Your task to perform on an android device: Clear the shopping cart on target. Image 0: 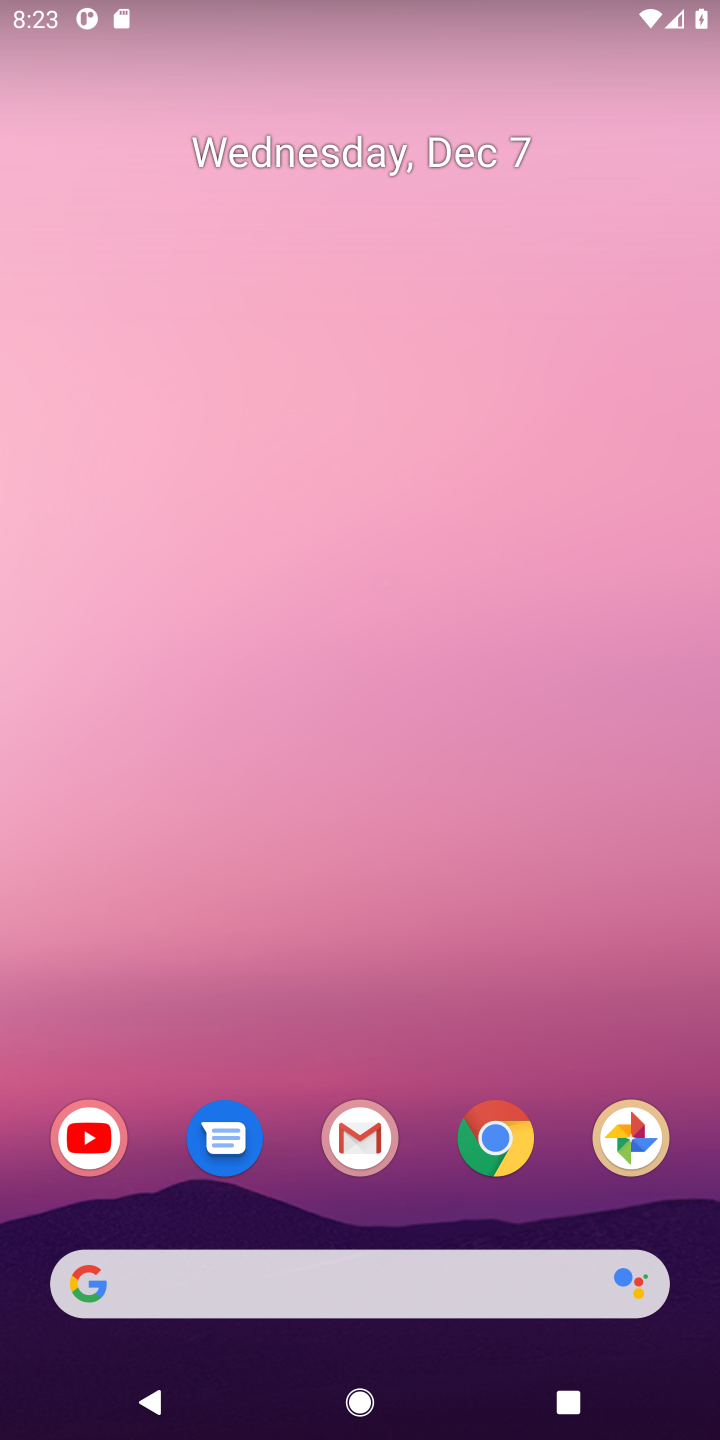
Step 0: press home button
Your task to perform on an android device: Clear the shopping cart on target. Image 1: 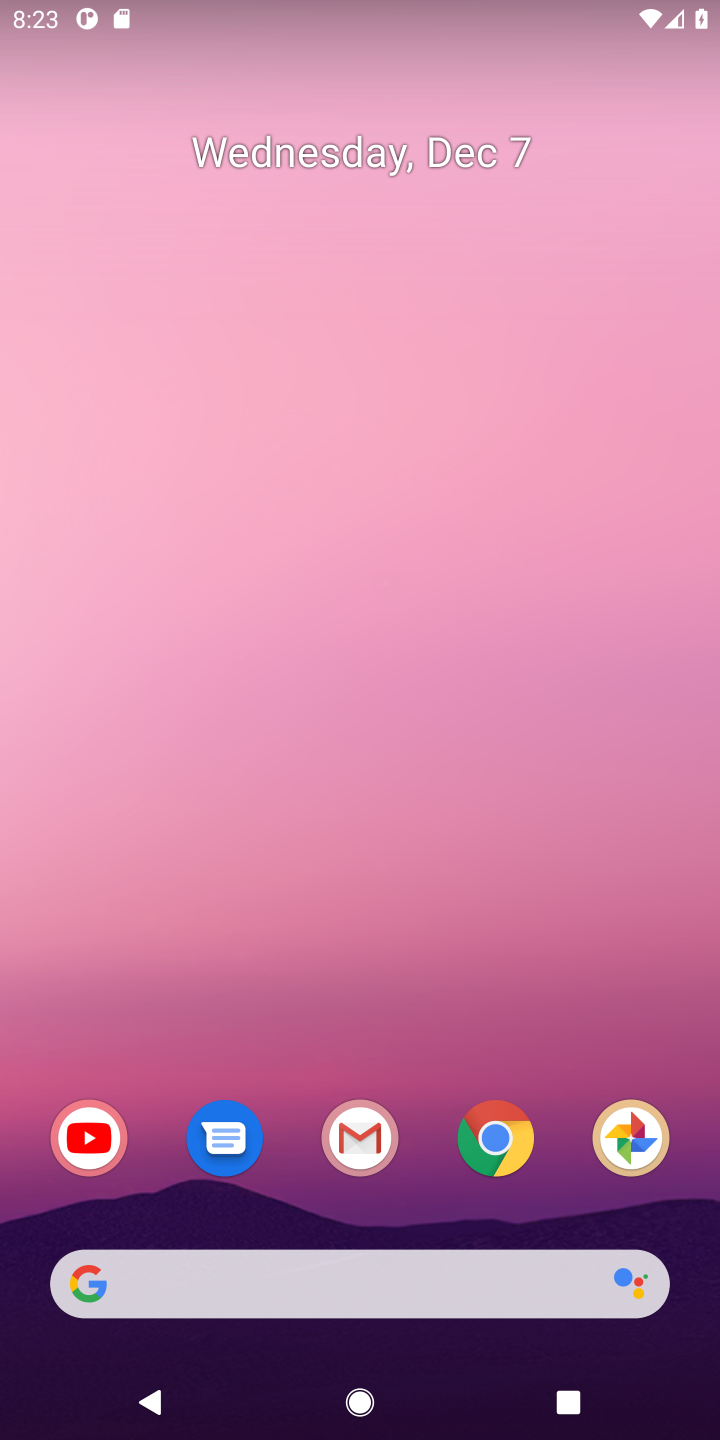
Step 1: click (130, 1266)
Your task to perform on an android device: Clear the shopping cart on target. Image 2: 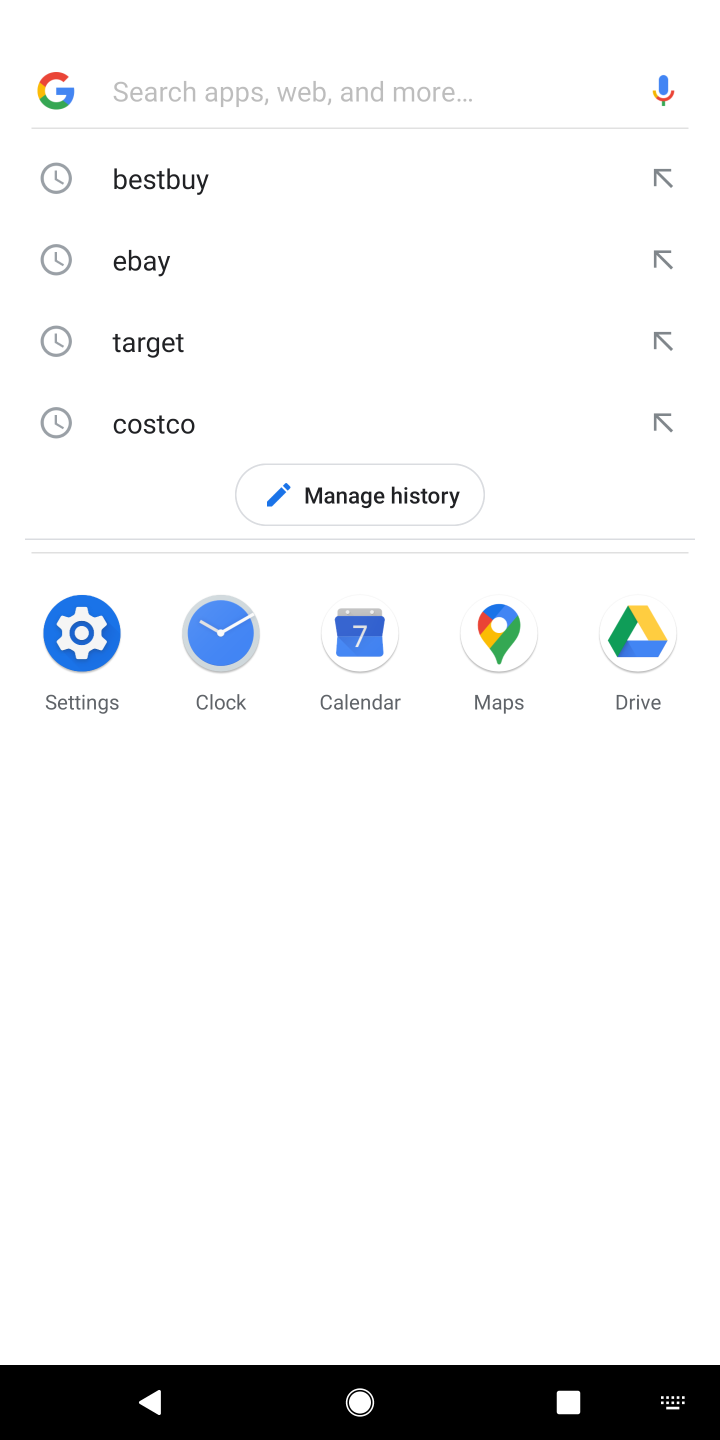
Step 2: type "target"
Your task to perform on an android device: Clear the shopping cart on target. Image 3: 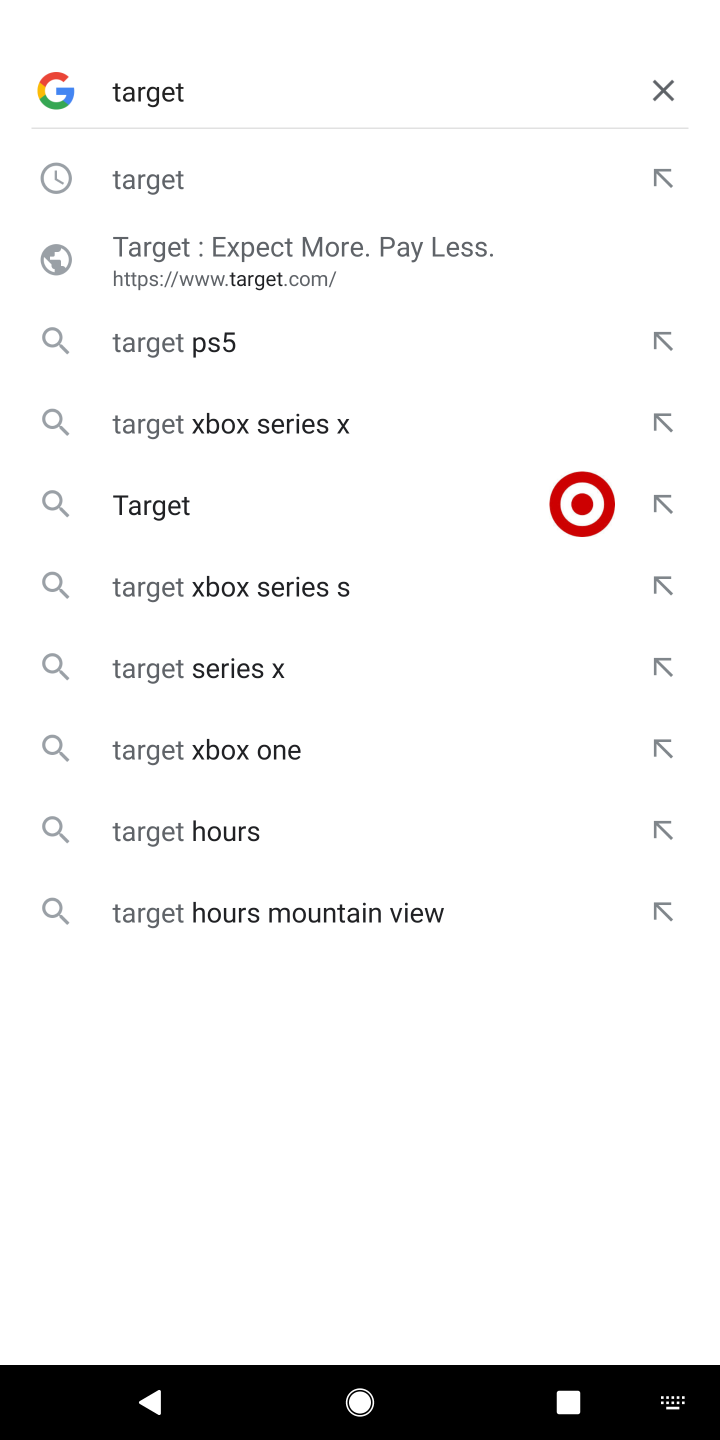
Step 3: press enter
Your task to perform on an android device: Clear the shopping cart on target. Image 4: 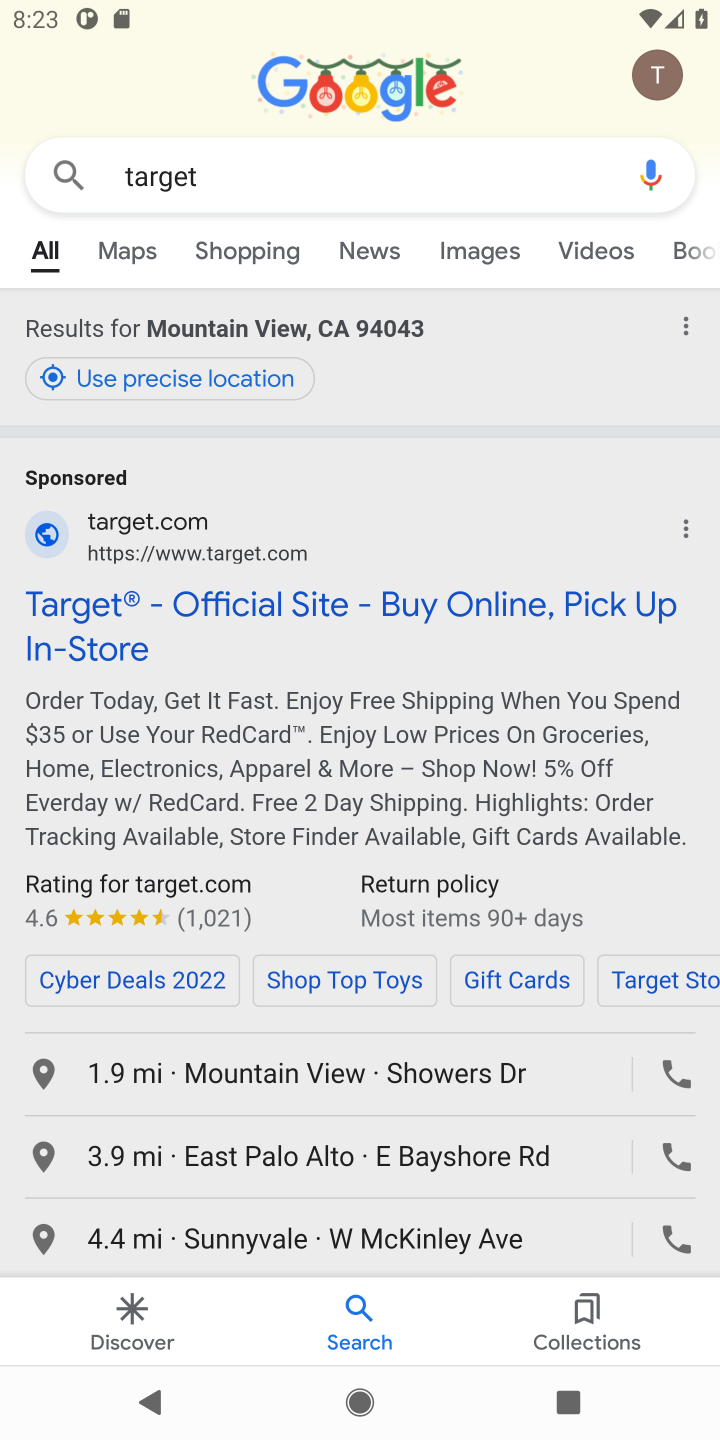
Step 4: click (246, 603)
Your task to perform on an android device: Clear the shopping cart on target. Image 5: 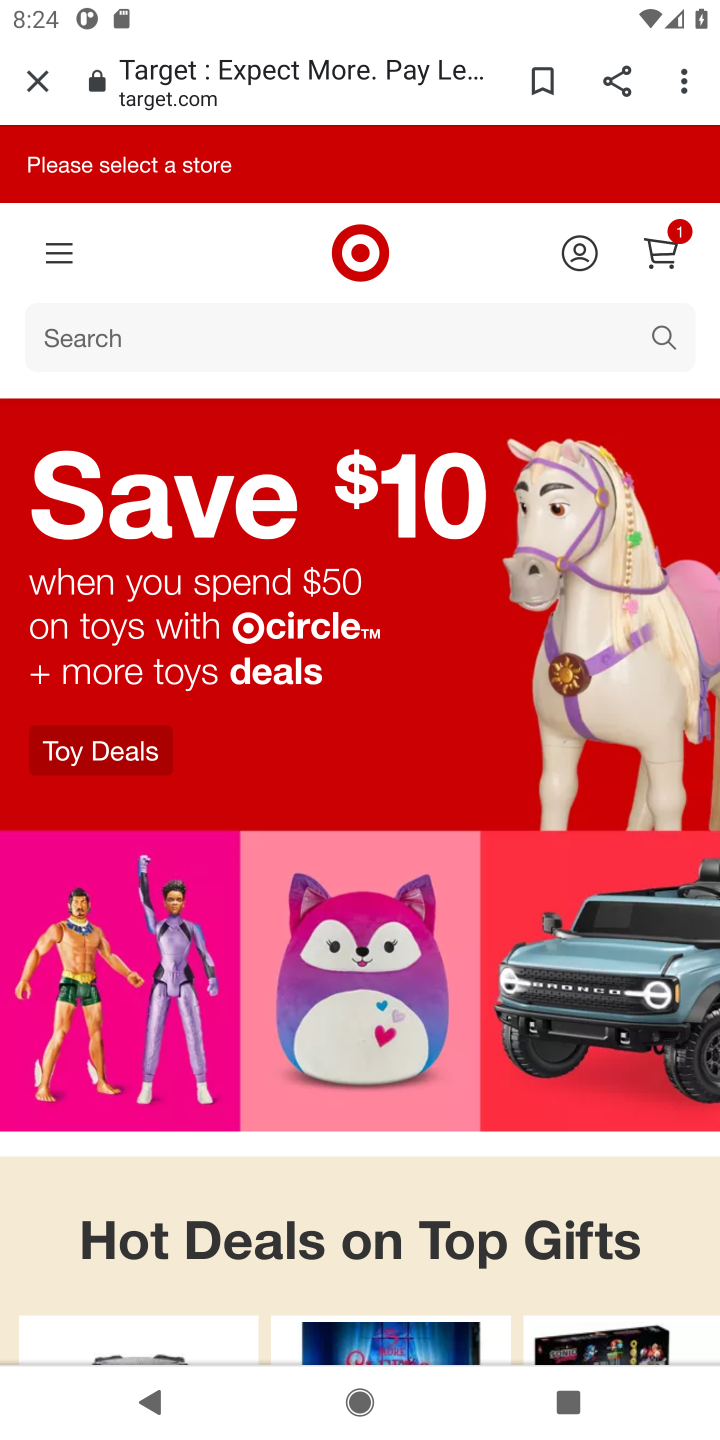
Step 5: click (657, 240)
Your task to perform on an android device: Clear the shopping cart on target. Image 6: 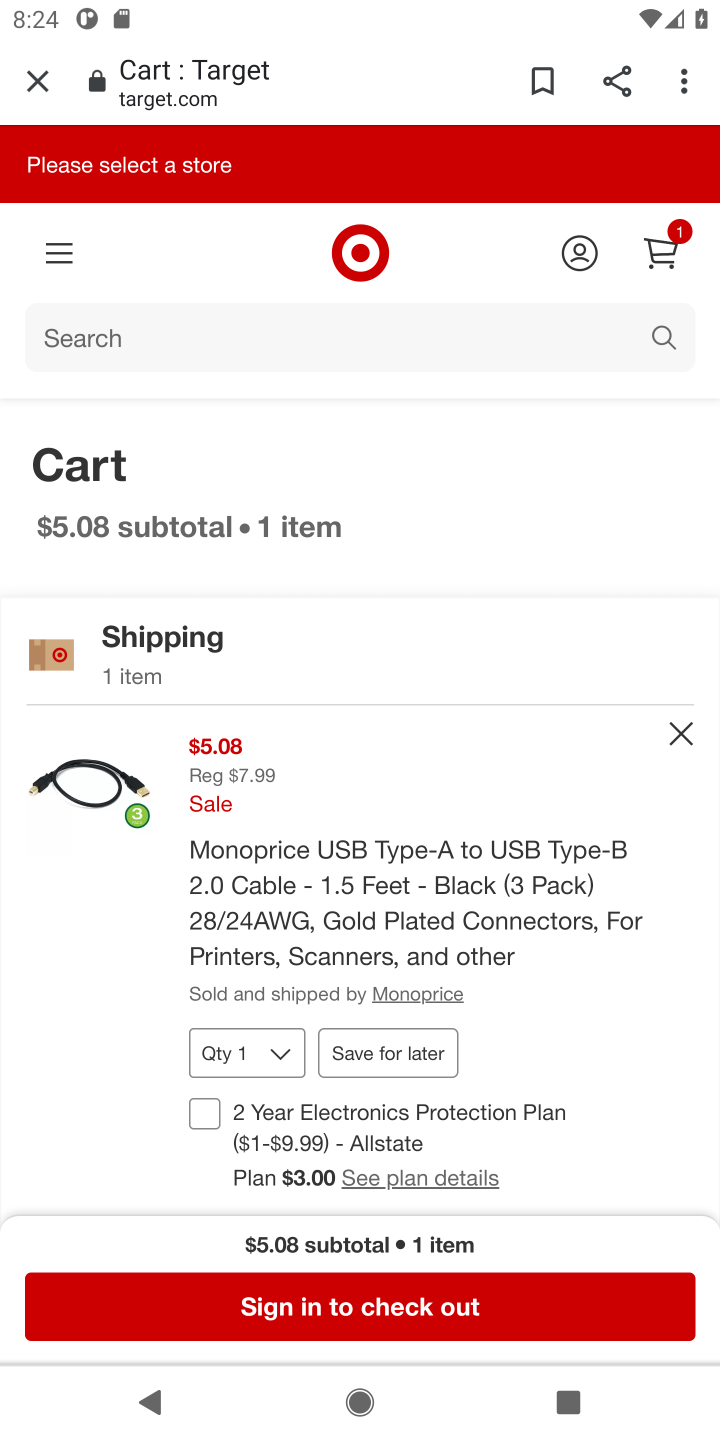
Step 6: click (682, 737)
Your task to perform on an android device: Clear the shopping cart on target. Image 7: 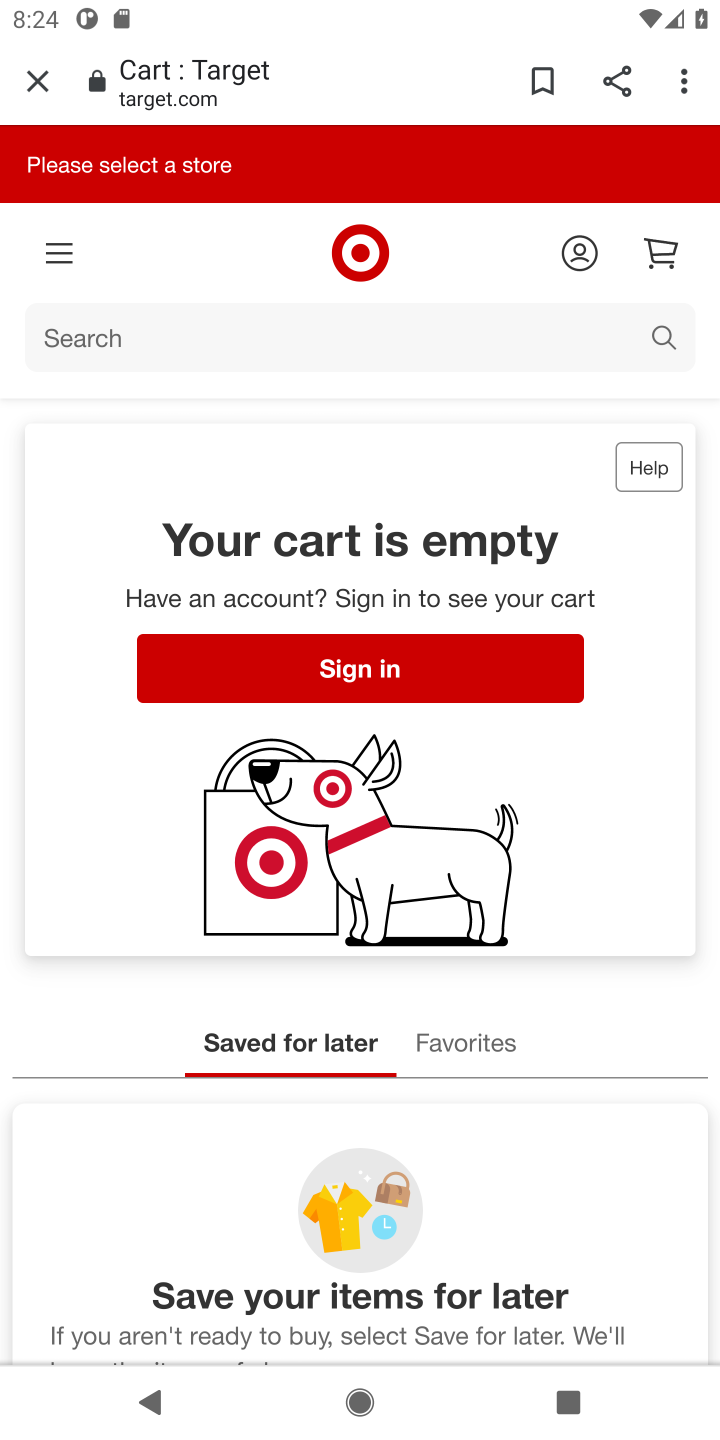
Step 7: task complete